Your task to perform on an android device: choose inbox layout in the gmail app Image 0: 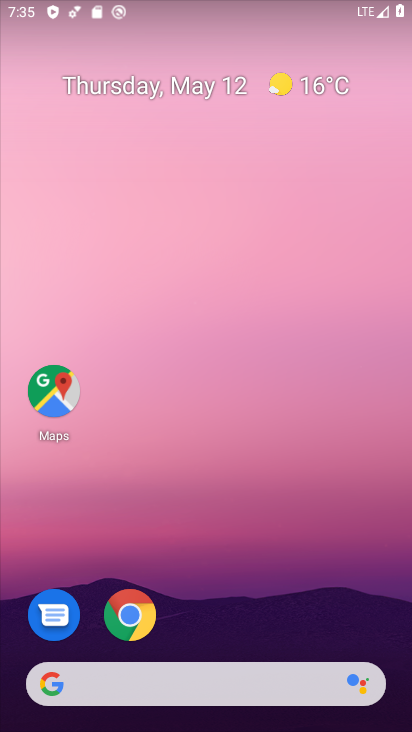
Step 0: drag from (274, 569) to (230, 57)
Your task to perform on an android device: choose inbox layout in the gmail app Image 1: 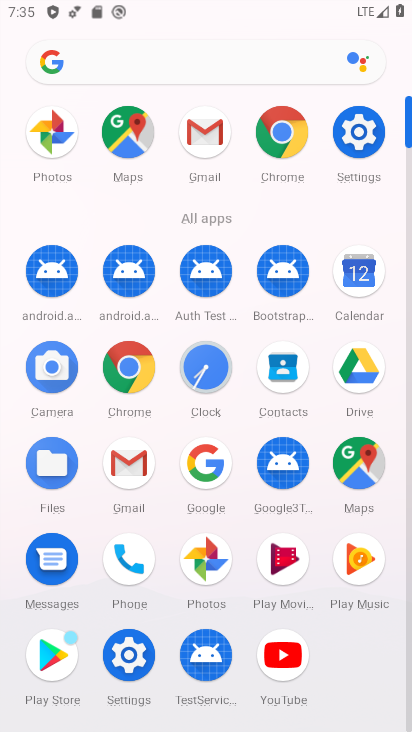
Step 1: click (220, 124)
Your task to perform on an android device: choose inbox layout in the gmail app Image 2: 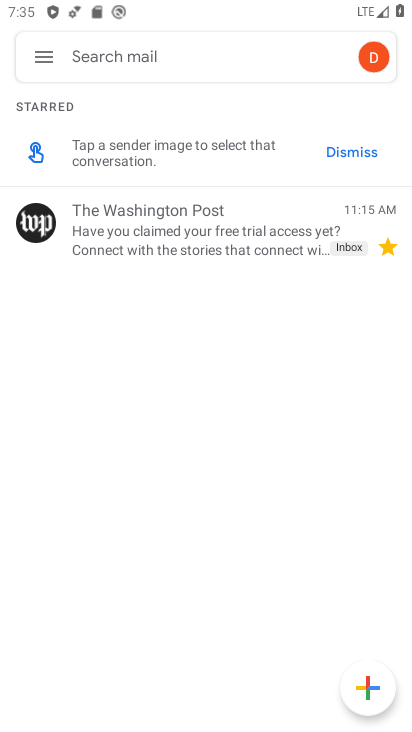
Step 2: click (42, 57)
Your task to perform on an android device: choose inbox layout in the gmail app Image 3: 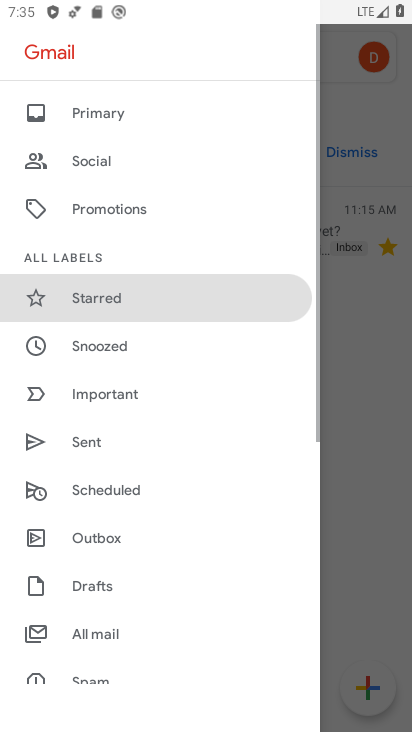
Step 3: drag from (134, 587) to (142, 273)
Your task to perform on an android device: choose inbox layout in the gmail app Image 4: 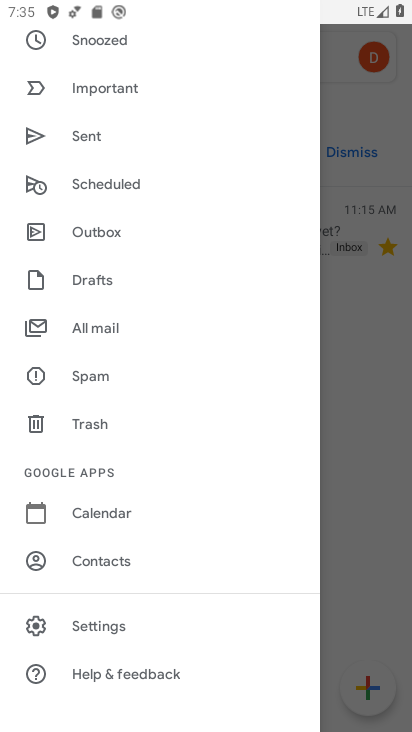
Step 4: click (118, 626)
Your task to perform on an android device: choose inbox layout in the gmail app Image 5: 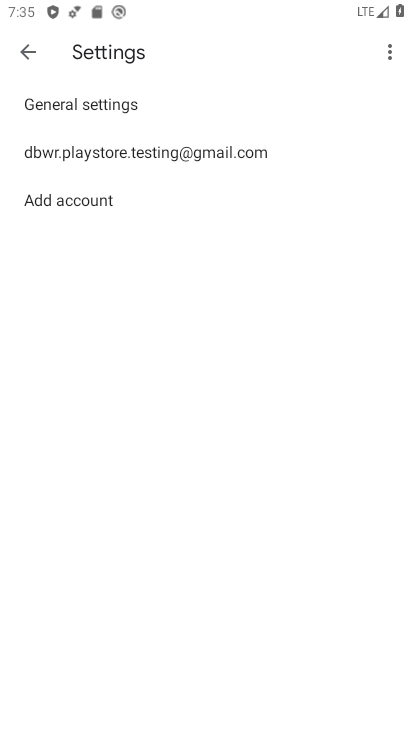
Step 5: click (211, 145)
Your task to perform on an android device: choose inbox layout in the gmail app Image 6: 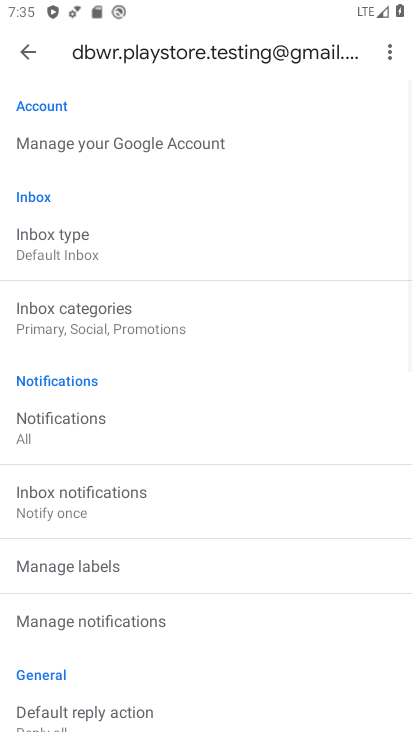
Step 6: click (61, 245)
Your task to perform on an android device: choose inbox layout in the gmail app Image 7: 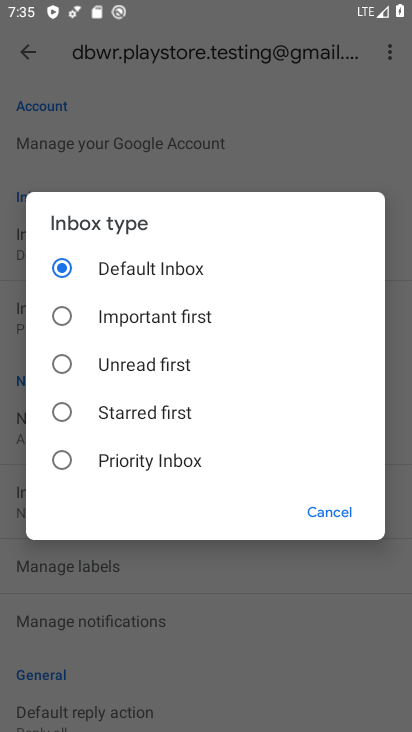
Step 7: click (57, 309)
Your task to perform on an android device: choose inbox layout in the gmail app Image 8: 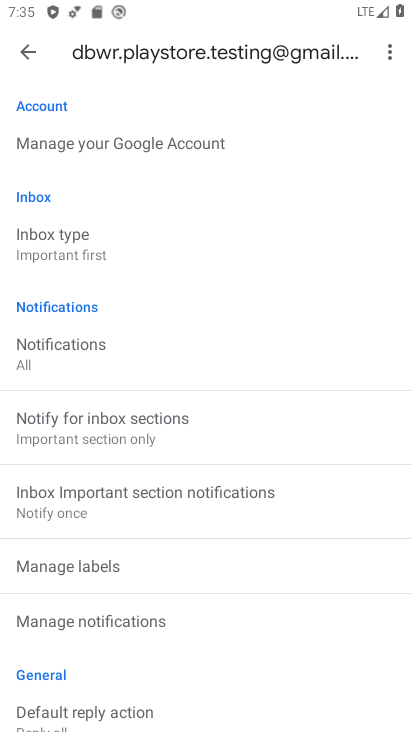
Step 8: task complete